Your task to perform on an android device: turn off sleep mode Image 0: 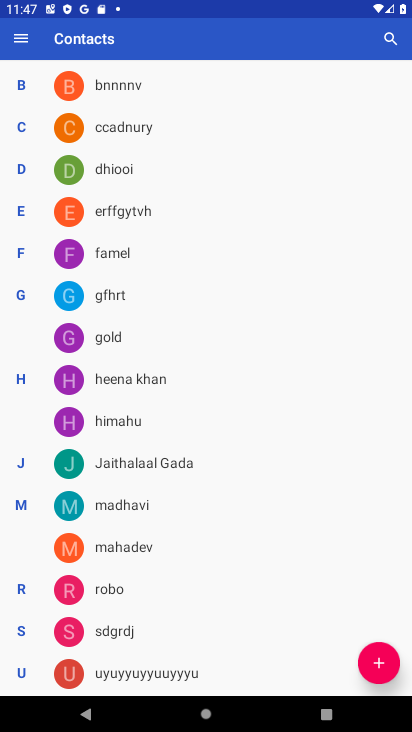
Step 0: press home button
Your task to perform on an android device: turn off sleep mode Image 1: 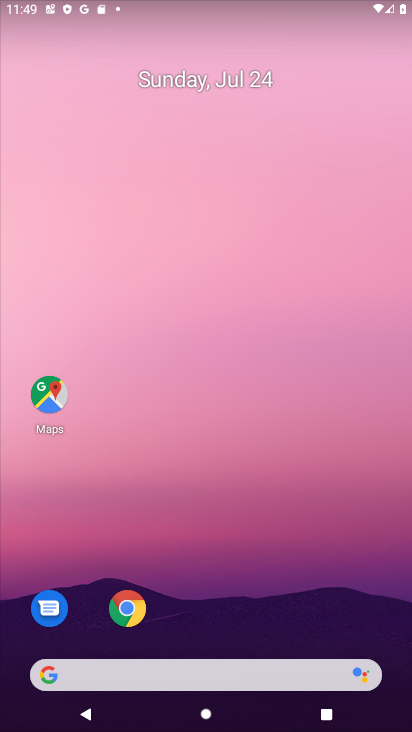
Step 1: drag from (290, 497) to (410, 95)
Your task to perform on an android device: turn off sleep mode Image 2: 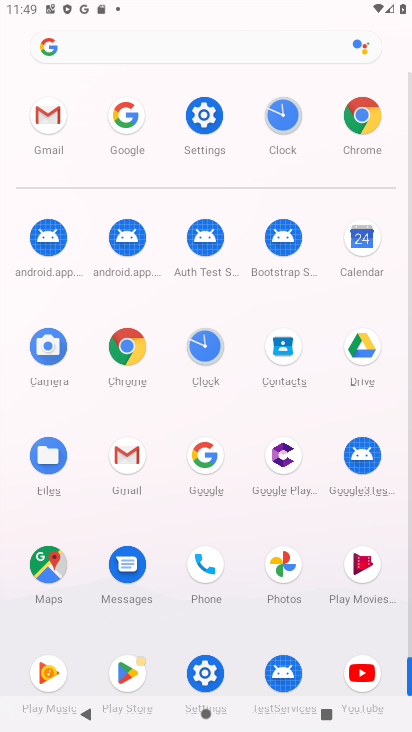
Step 2: click (221, 100)
Your task to perform on an android device: turn off sleep mode Image 3: 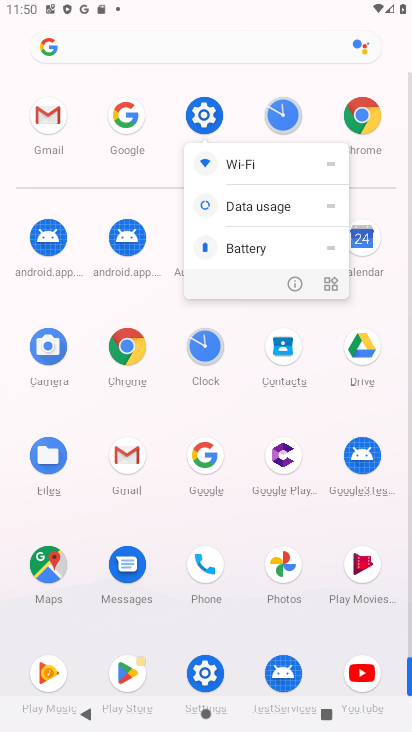
Step 3: click (200, 121)
Your task to perform on an android device: turn off sleep mode Image 4: 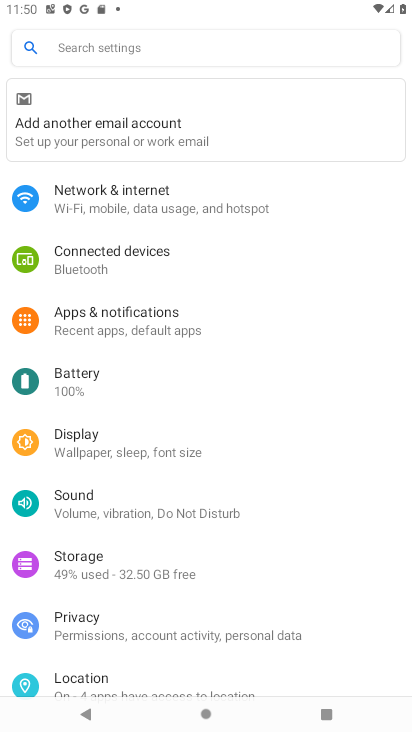
Step 4: click (103, 428)
Your task to perform on an android device: turn off sleep mode Image 5: 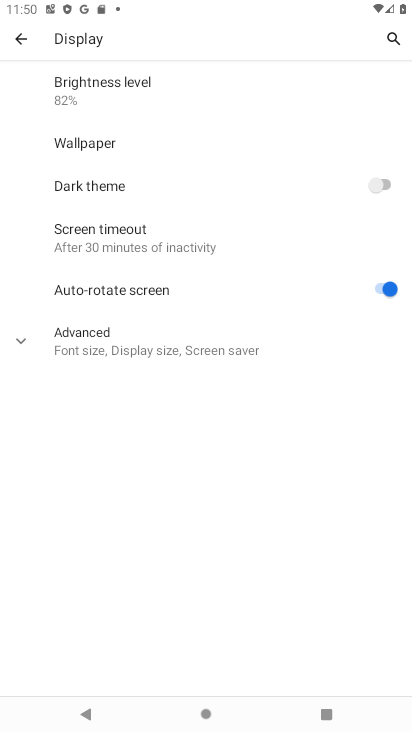
Step 5: click (135, 249)
Your task to perform on an android device: turn off sleep mode Image 6: 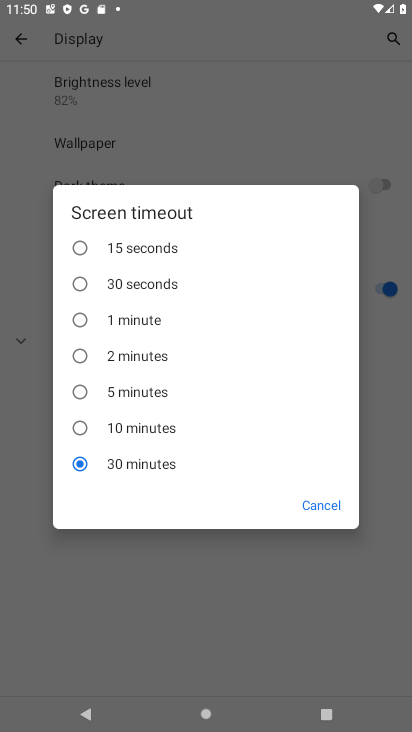
Step 6: task complete